Your task to perform on an android device: change the clock display to digital Image 0: 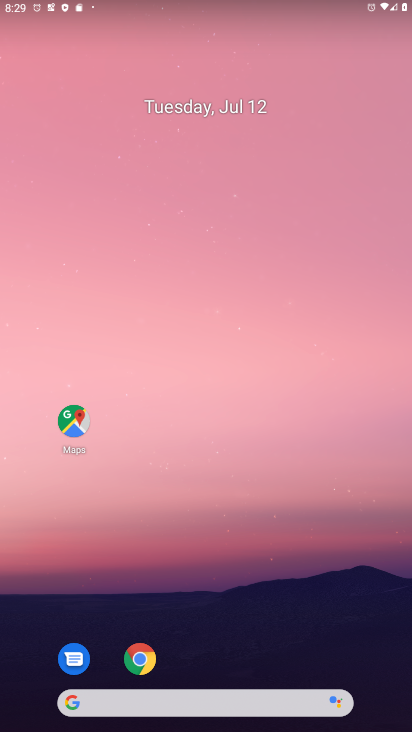
Step 0: drag from (190, 705) to (233, 193)
Your task to perform on an android device: change the clock display to digital Image 1: 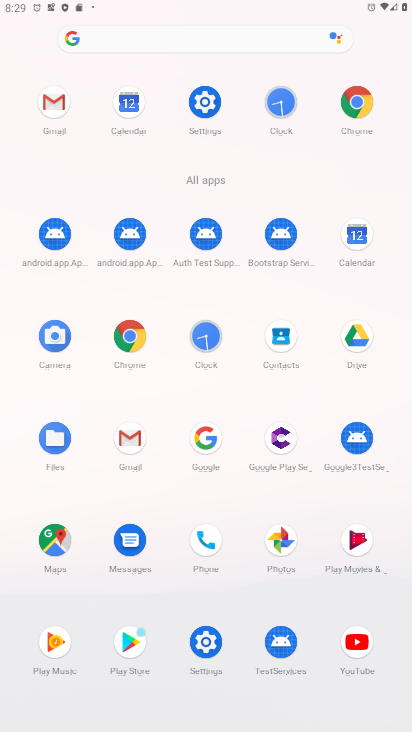
Step 1: click (282, 101)
Your task to perform on an android device: change the clock display to digital Image 2: 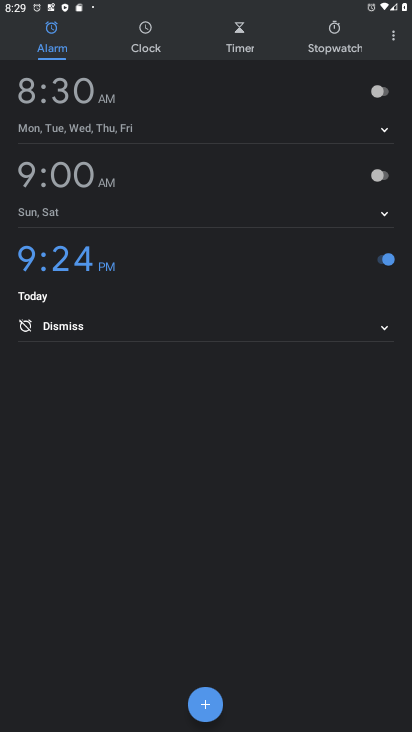
Step 2: click (393, 39)
Your task to perform on an android device: change the clock display to digital Image 3: 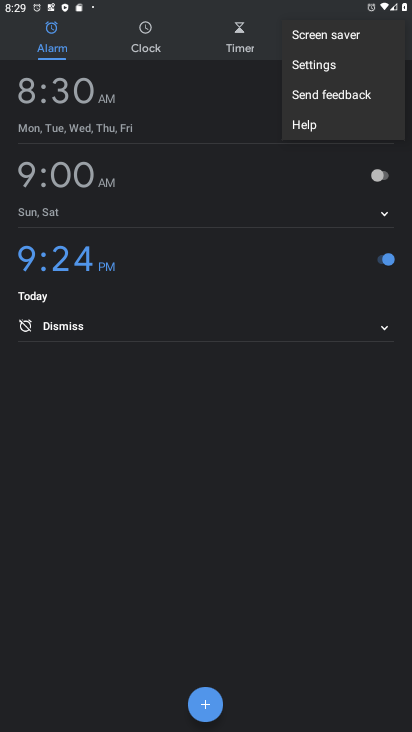
Step 3: click (337, 68)
Your task to perform on an android device: change the clock display to digital Image 4: 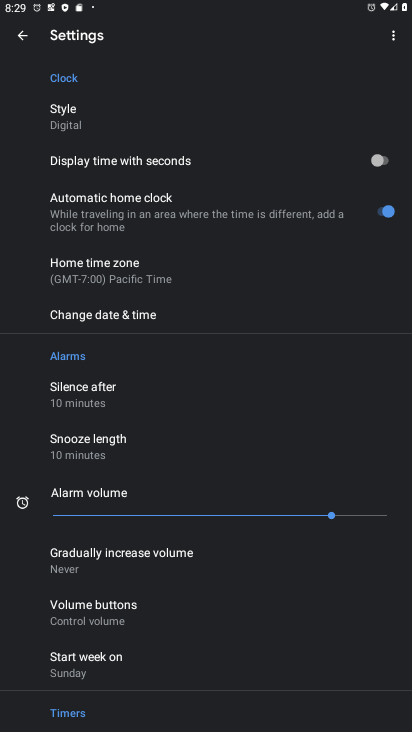
Step 4: click (77, 125)
Your task to perform on an android device: change the clock display to digital Image 5: 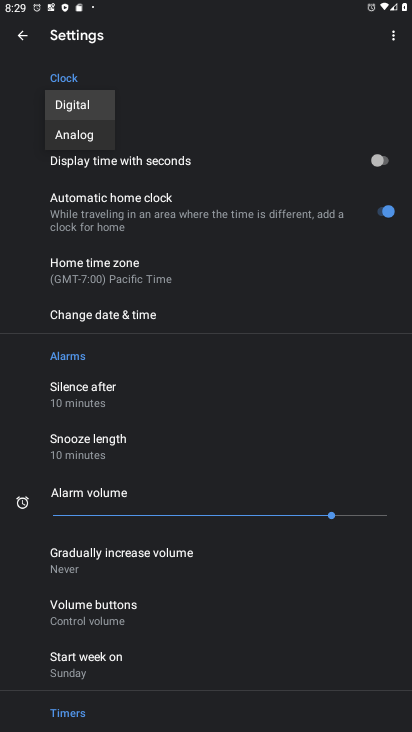
Step 5: click (84, 109)
Your task to perform on an android device: change the clock display to digital Image 6: 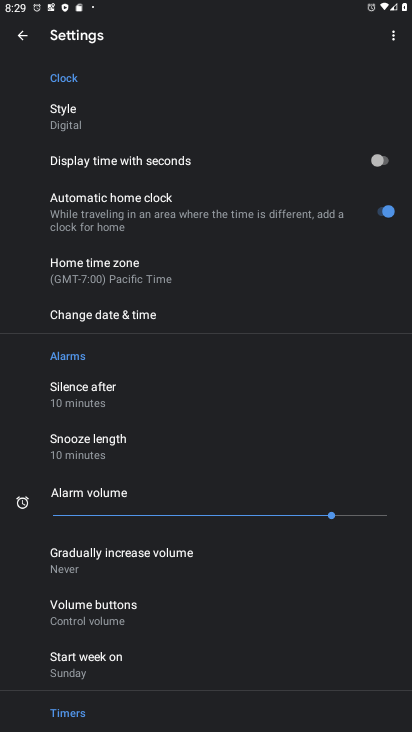
Step 6: task complete